Your task to perform on an android device: Show me popular games on the Play Store Image 0: 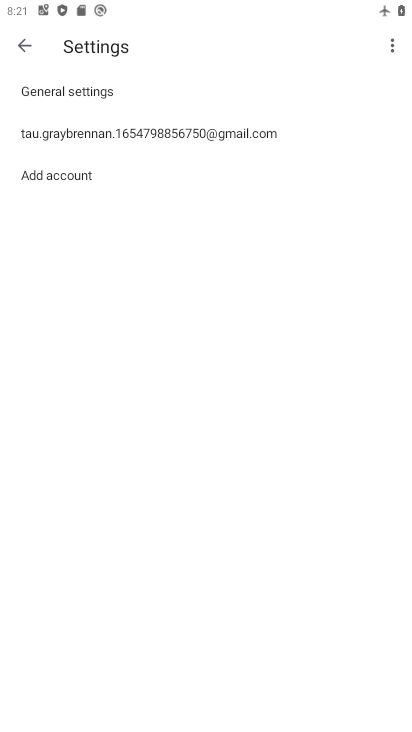
Step 0: task complete